Your task to perform on an android device: turn on notifications settings in the gmail app Image 0: 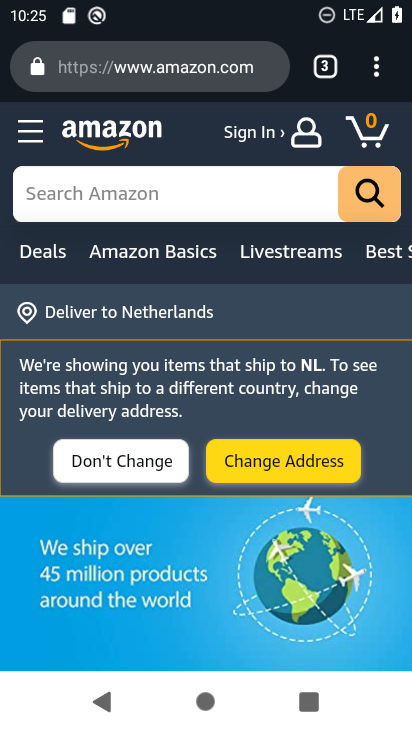
Step 0: press home button
Your task to perform on an android device: turn on notifications settings in the gmail app Image 1: 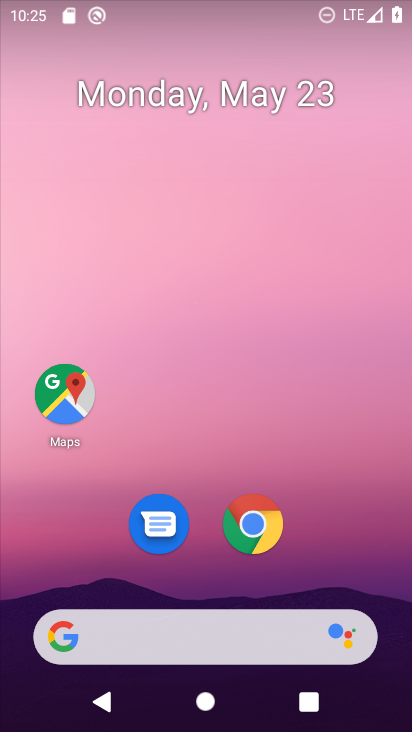
Step 1: drag from (237, 452) to (246, 27)
Your task to perform on an android device: turn on notifications settings in the gmail app Image 2: 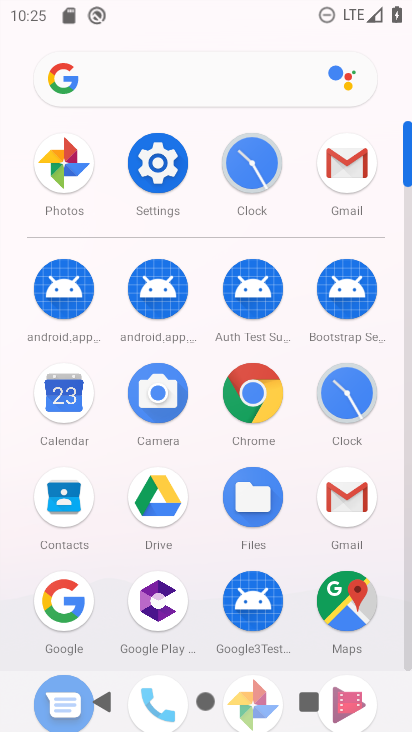
Step 2: click (341, 149)
Your task to perform on an android device: turn on notifications settings in the gmail app Image 3: 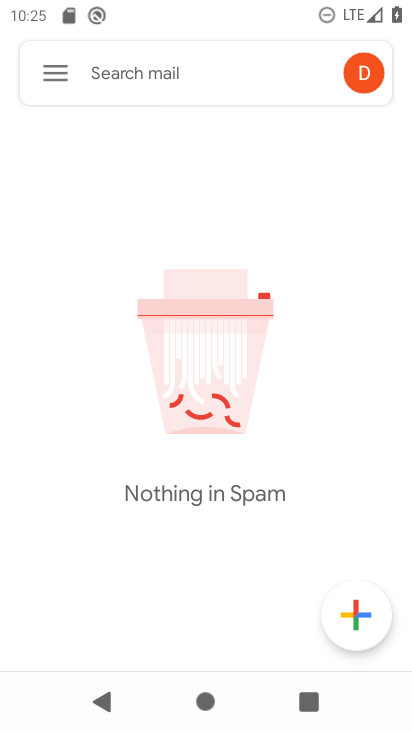
Step 3: click (56, 73)
Your task to perform on an android device: turn on notifications settings in the gmail app Image 4: 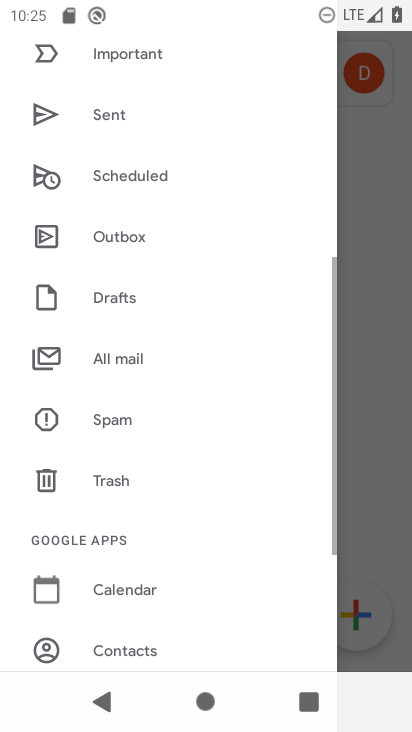
Step 4: drag from (176, 427) to (183, 269)
Your task to perform on an android device: turn on notifications settings in the gmail app Image 5: 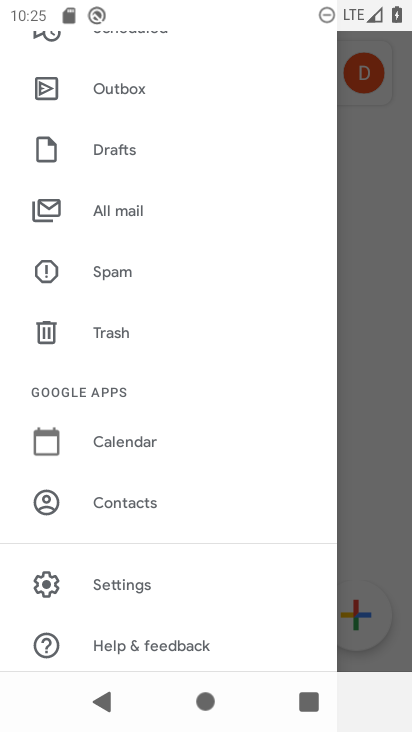
Step 5: click (127, 568)
Your task to perform on an android device: turn on notifications settings in the gmail app Image 6: 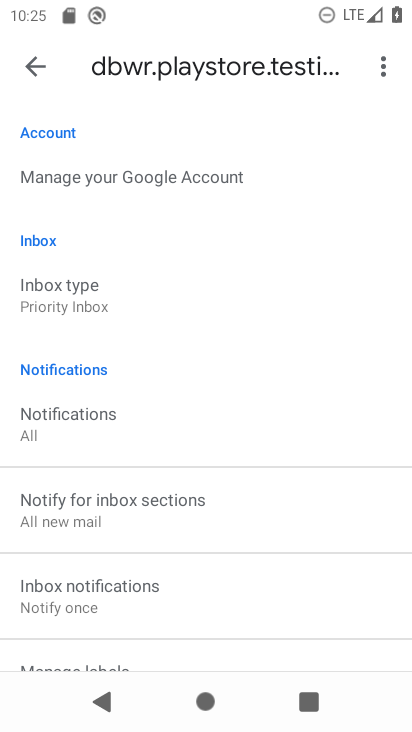
Step 6: drag from (209, 573) to (274, 75)
Your task to perform on an android device: turn on notifications settings in the gmail app Image 7: 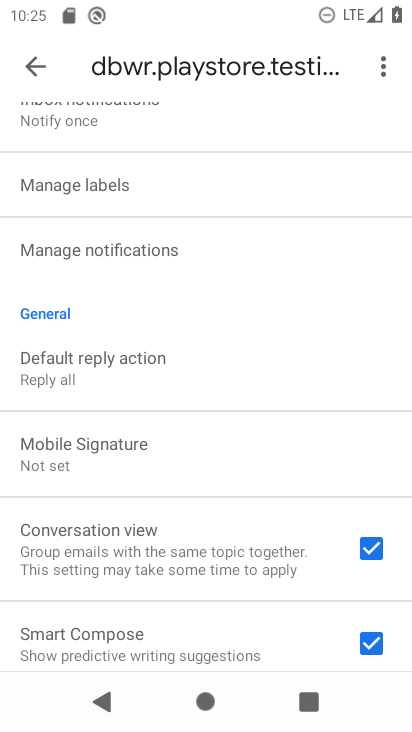
Step 7: click (212, 251)
Your task to perform on an android device: turn on notifications settings in the gmail app Image 8: 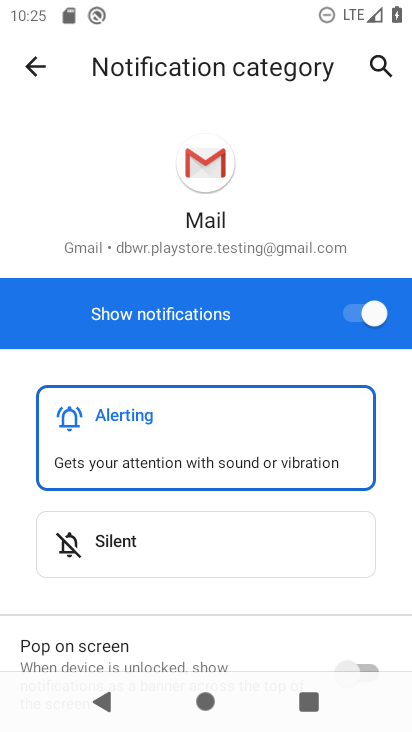
Step 8: task complete